Your task to perform on an android device: toggle wifi Image 0: 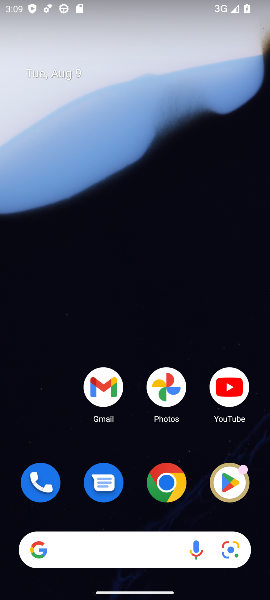
Step 0: drag from (145, 439) to (115, 113)
Your task to perform on an android device: toggle wifi Image 1: 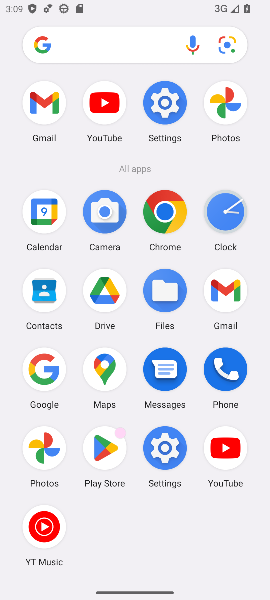
Step 1: click (166, 88)
Your task to perform on an android device: toggle wifi Image 2: 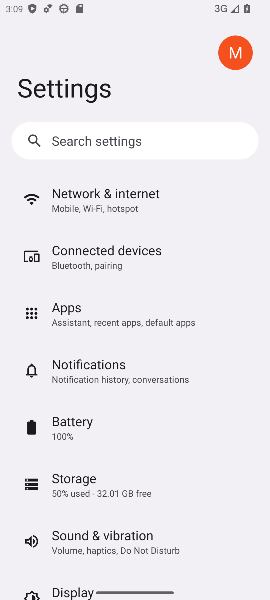
Step 2: click (126, 189)
Your task to perform on an android device: toggle wifi Image 3: 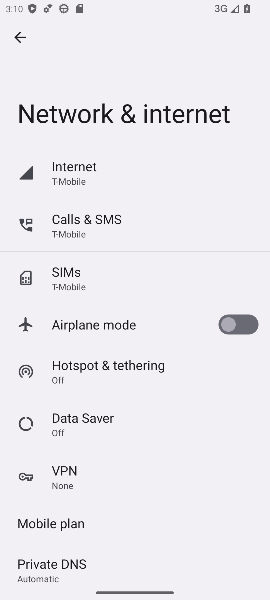
Step 3: click (111, 173)
Your task to perform on an android device: toggle wifi Image 4: 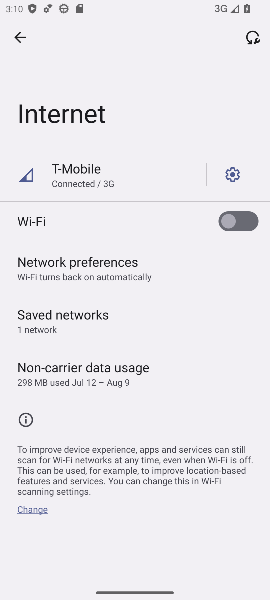
Step 4: click (245, 214)
Your task to perform on an android device: toggle wifi Image 5: 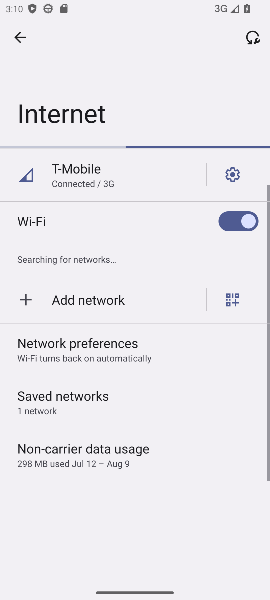
Step 5: task complete